Your task to perform on an android device: Play the new Beyonce video on YouTube Image 0: 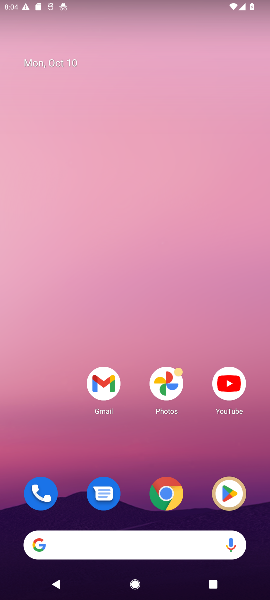
Step 0: click (231, 390)
Your task to perform on an android device: Play the new Beyonce video on YouTube Image 1: 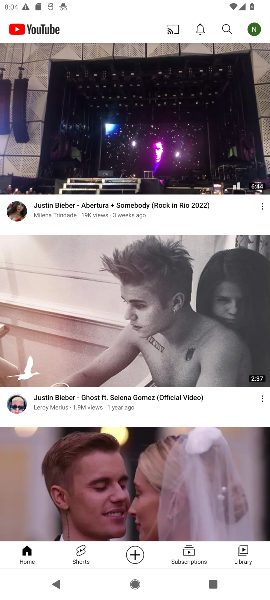
Step 1: click (232, 25)
Your task to perform on an android device: Play the new Beyonce video on YouTube Image 2: 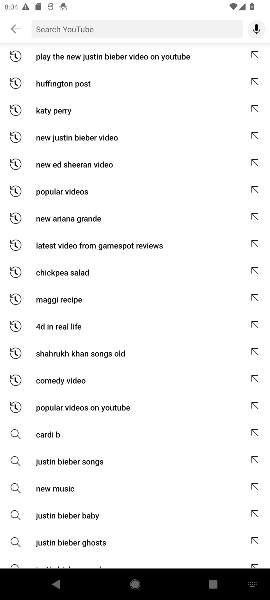
Step 2: type "the new Beyonce video"
Your task to perform on an android device: Play the new Beyonce video on YouTube Image 3: 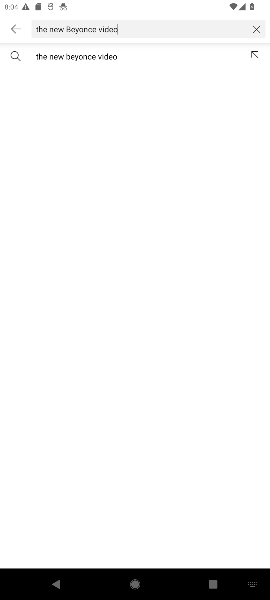
Step 3: click (72, 50)
Your task to perform on an android device: Play the new Beyonce video on YouTube Image 4: 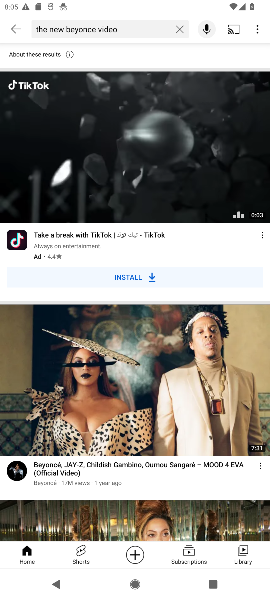
Step 4: task complete